Your task to perform on an android device: turn off airplane mode Image 0: 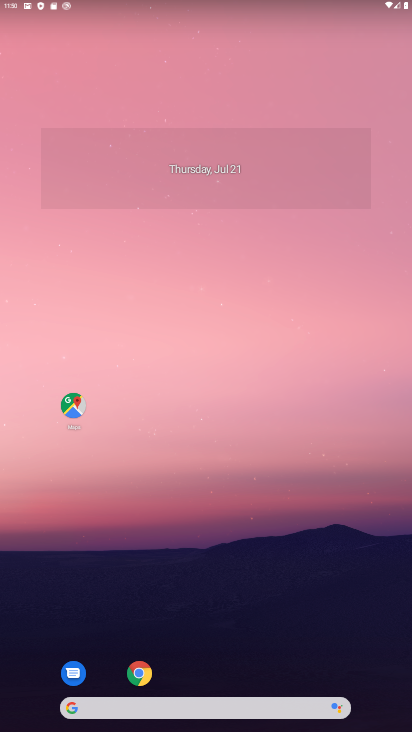
Step 0: drag from (242, 0) to (247, 560)
Your task to perform on an android device: turn off airplane mode Image 1: 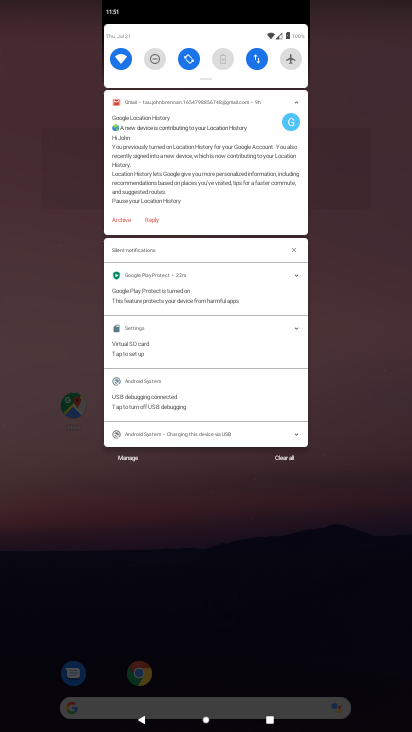
Step 1: click (269, 507)
Your task to perform on an android device: turn off airplane mode Image 2: 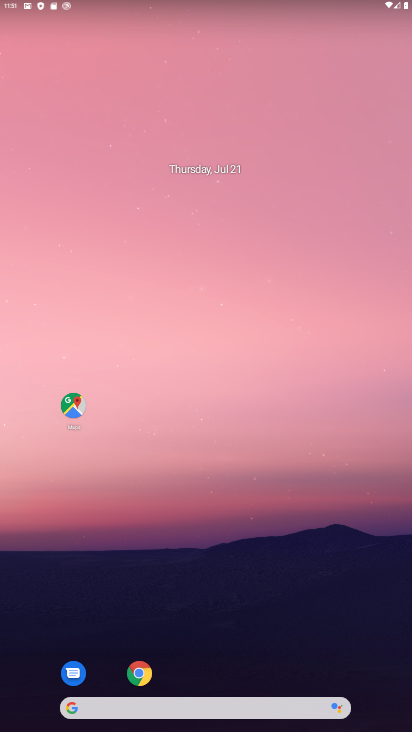
Step 2: task complete